Your task to perform on an android device: Is it going to rain this weekend? Image 0: 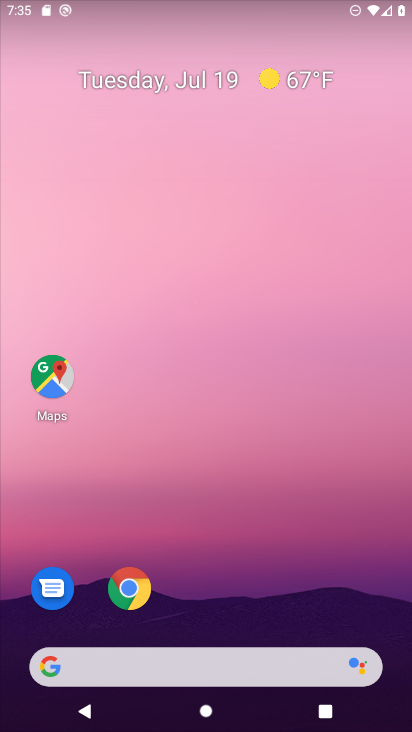
Step 0: click (251, 664)
Your task to perform on an android device: Is it going to rain this weekend? Image 1: 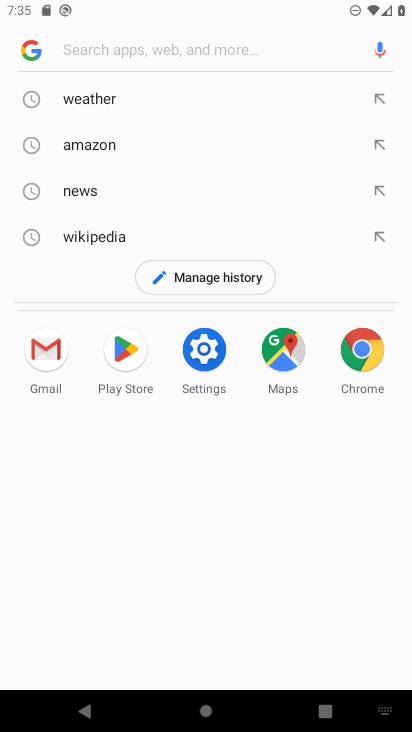
Step 1: click (120, 97)
Your task to perform on an android device: Is it going to rain this weekend? Image 2: 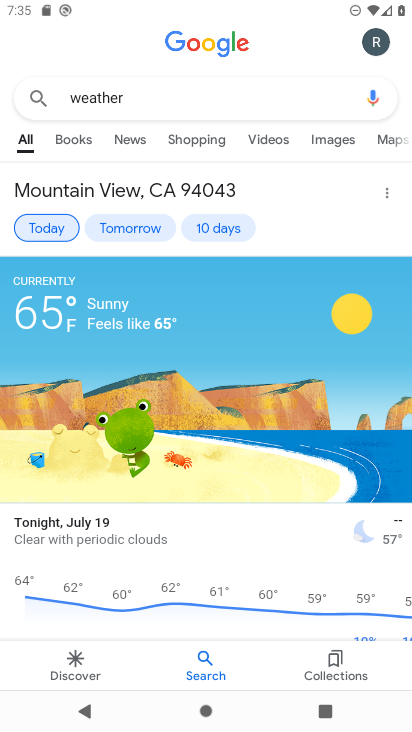
Step 2: click (230, 222)
Your task to perform on an android device: Is it going to rain this weekend? Image 3: 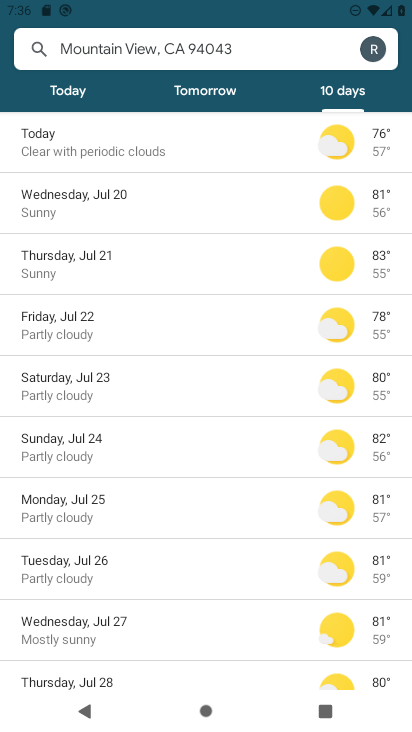
Step 3: drag from (214, 415) to (228, 287)
Your task to perform on an android device: Is it going to rain this weekend? Image 4: 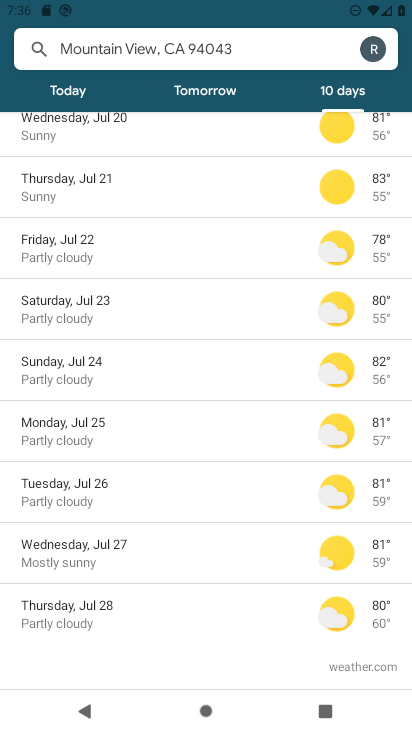
Step 4: click (224, 320)
Your task to perform on an android device: Is it going to rain this weekend? Image 5: 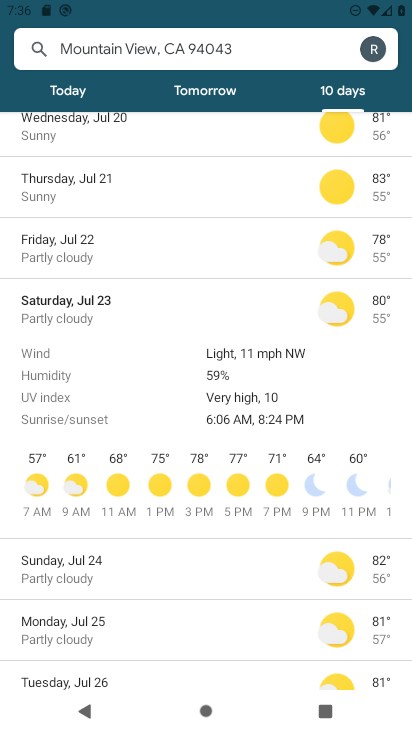
Step 5: task complete